Your task to perform on an android device: Open calendar and show me the fourth week of next month Image 0: 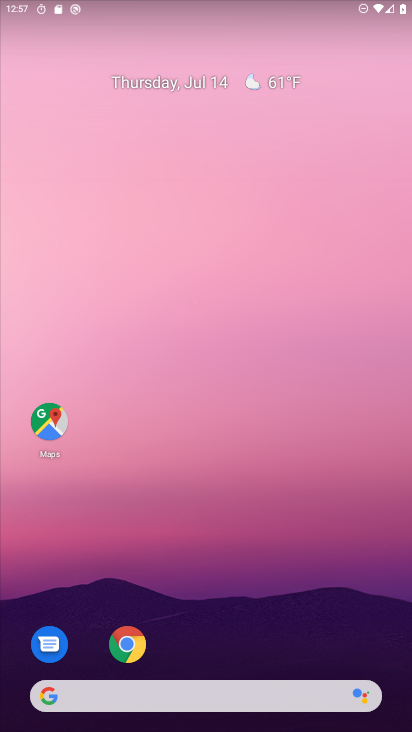
Step 0: drag from (274, 636) to (315, 14)
Your task to perform on an android device: Open calendar and show me the fourth week of next month Image 1: 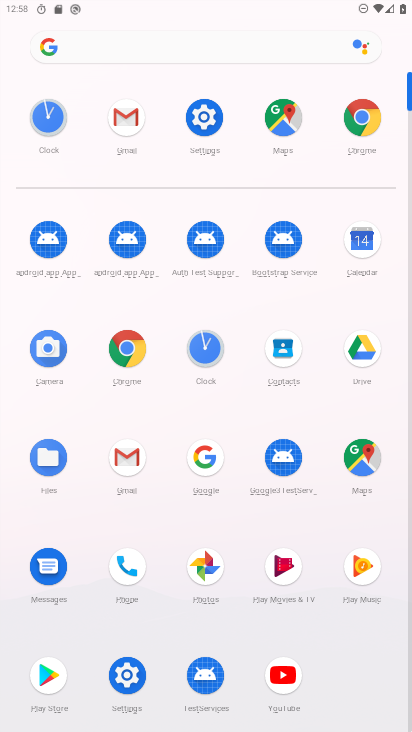
Step 1: click (373, 251)
Your task to perform on an android device: Open calendar and show me the fourth week of next month Image 2: 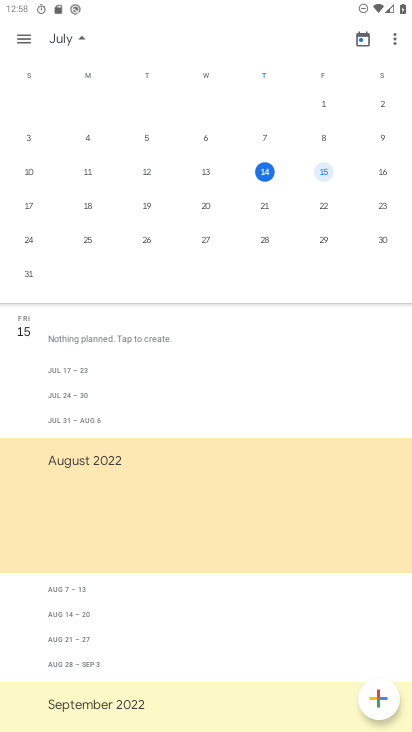
Step 2: drag from (392, 144) to (7, 203)
Your task to perform on an android device: Open calendar and show me the fourth week of next month Image 3: 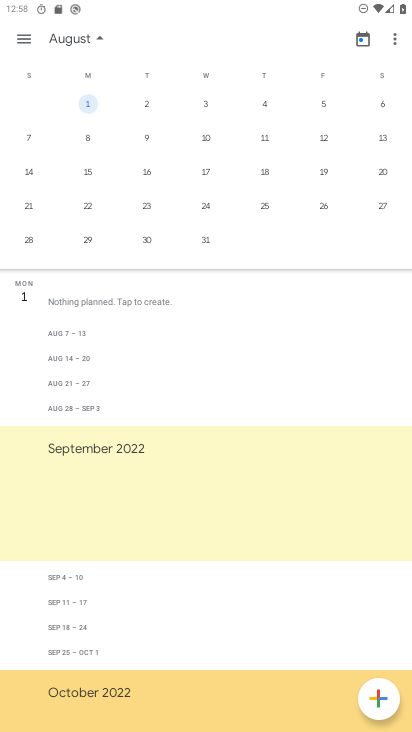
Step 3: click (200, 196)
Your task to perform on an android device: Open calendar and show me the fourth week of next month Image 4: 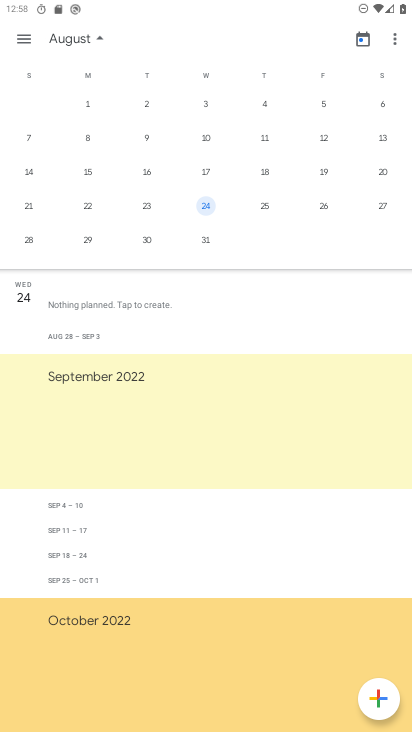
Step 4: task complete